Your task to perform on an android device: empty trash in the gmail app Image 0: 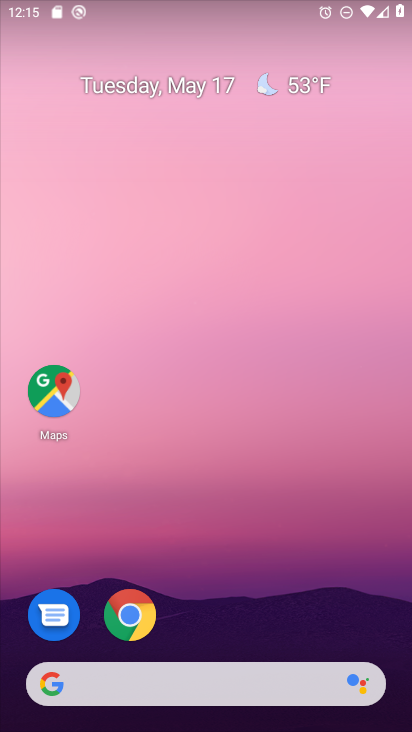
Step 0: drag from (218, 656) to (209, 345)
Your task to perform on an android device: empty trash in the gmail app Image 1: 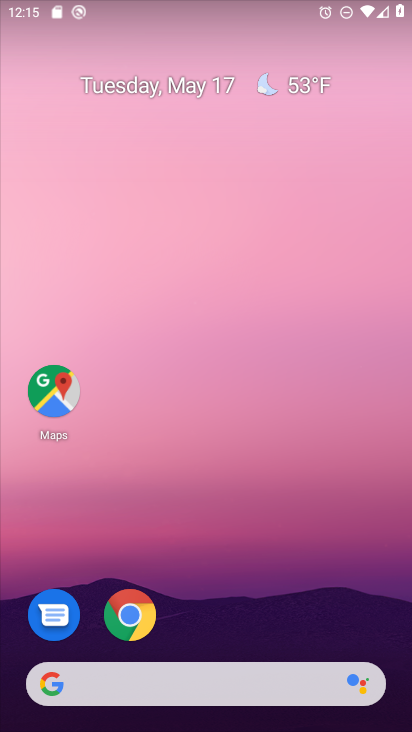
Step 1: drag from (196, 669) to (178, 314)
Your task to perform on an android device: empty trash in the gmail app Image 2: 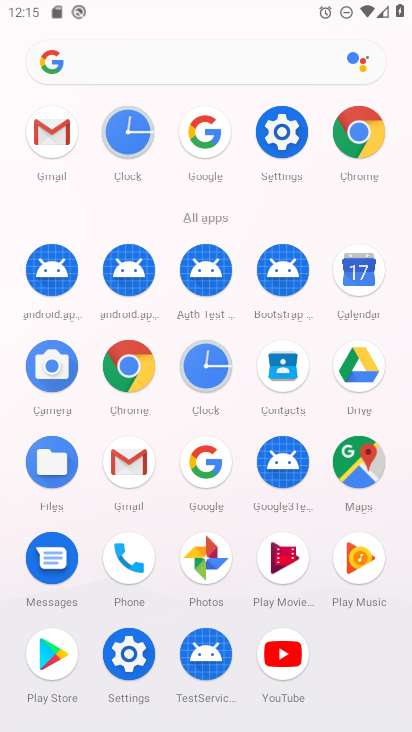
Step 2: click (115, 469)
Your task to perform on an android device: empty trash in the gmail app Image 3: 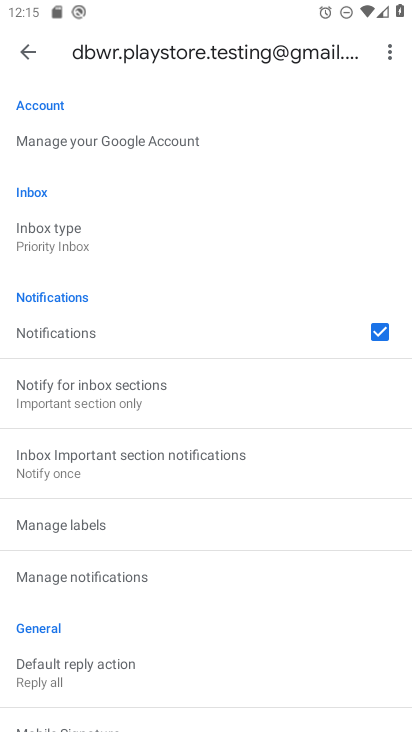
Step 3: click (26, 48)
Your task to perform on an android device: empty trash in the gmail app Image 4: 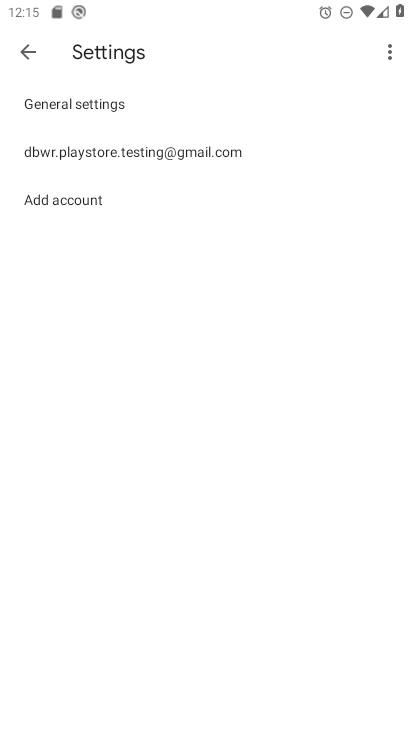
Step 4: click (26, 48)
Your task to perform on an android device: empty trash in the gmail app Image 5: 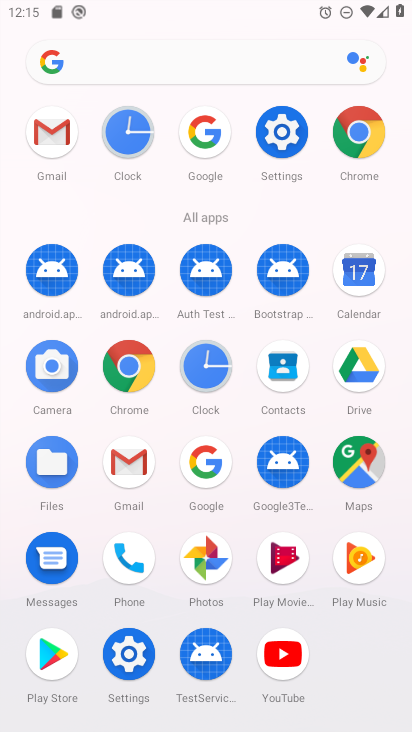
Step 5: click (38, 147)
Your task to perform on an android device: empty trash in the gmail app Image 6: 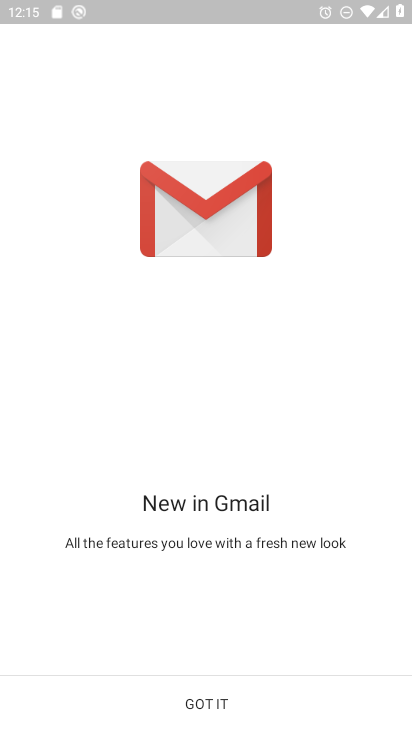
Step 6: click (215, 707)
Your task to perform on an android device: empty trash in the gmail app Image 7: 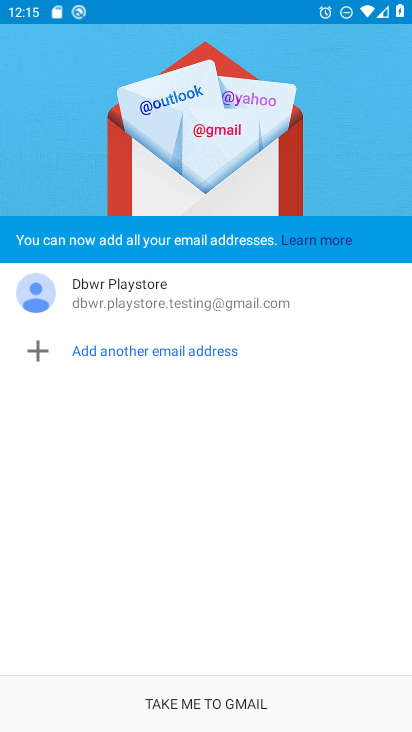
Step 7: click (218, 703)
Your task to perform on an android device: empty trash in the gmail app Image 8: 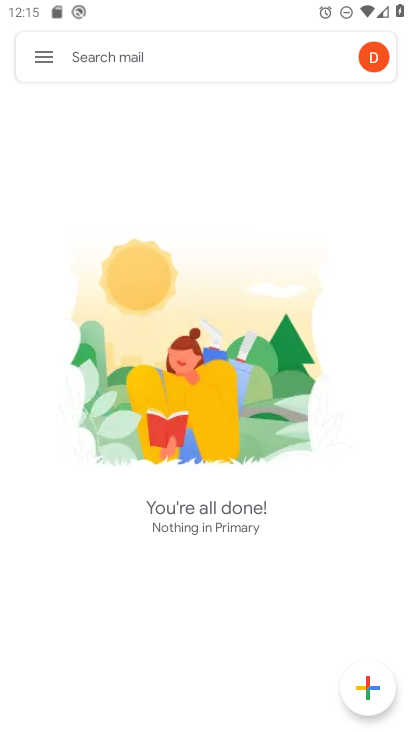
Step 8: click (34, 63)
Your task to perform on an android device: empty trash in the gmail app Image 9: 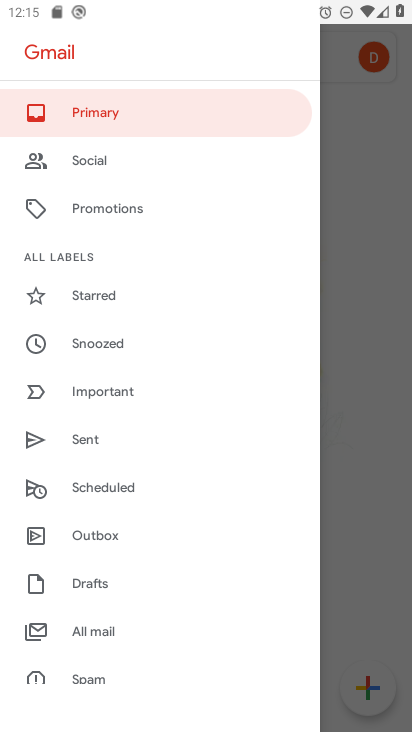
Step 9: drag from (98, 669) to (151, 319)
Your task to perform on an android device: empty trash in the gmail app Image 10: 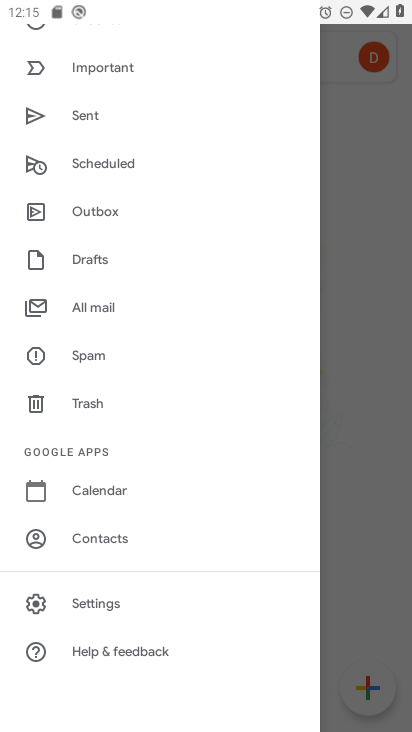
Step 10: click (98, 403)
Your task to perform on an android device: empty trash in the gmail app Image 11: 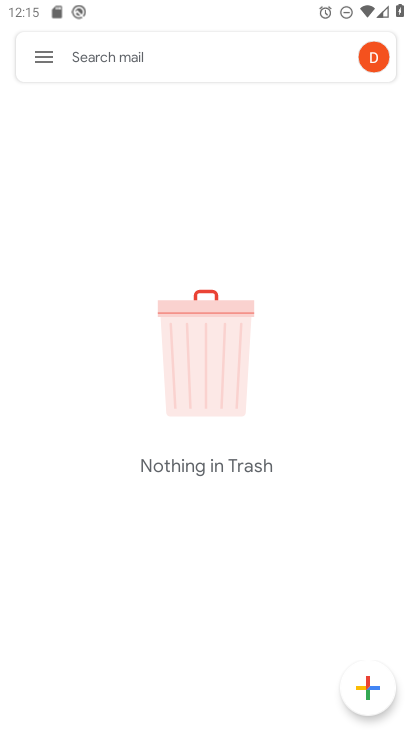
Step 11: task complete